Your task to perform on an android device: Search for sushi restaurants on Maps Image 0: 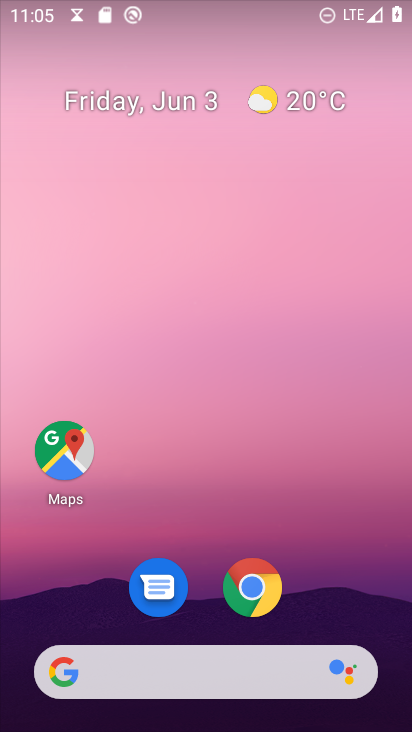
Step 0: click (69, 452)
Your task to perform on an android device: Search for sushi restaurants on Maps Image 1: 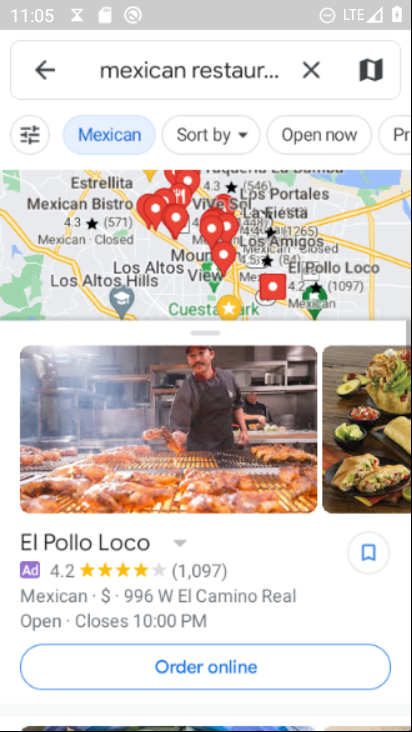
Step 1: click (301, 71)
Your task to perform on an android device: Search for sushi restaurants on Maps Image 2: 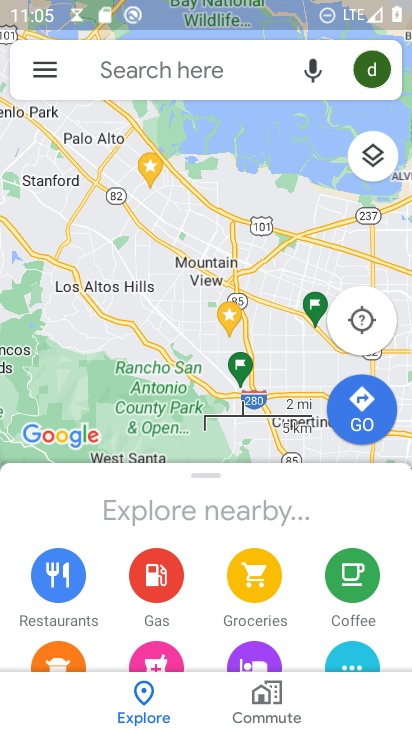
Step 2: click (186, 88)
Your task to perform on an android device: Search for sushi restaurants on Maps Image 3: 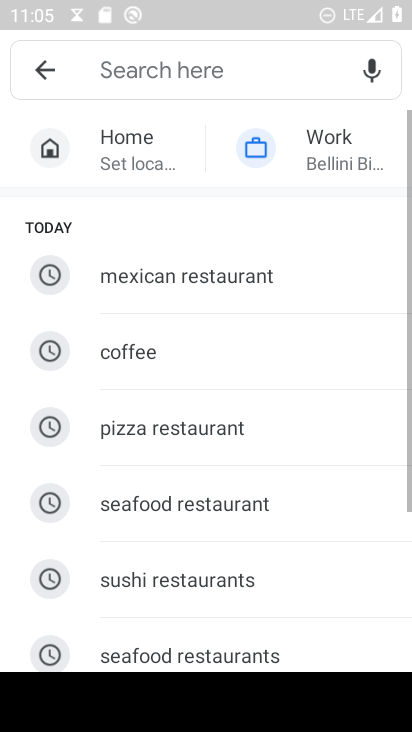
Step 3: click (165, 602)
Your task to perform on an android device: Search for sushi restaurants on Maps Image 4: 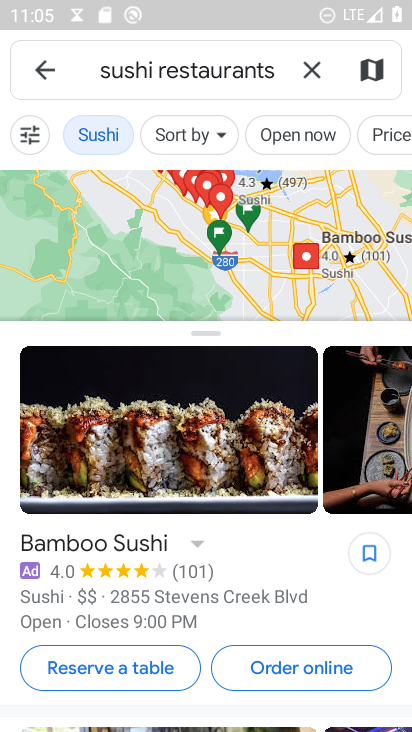
Step 4: task complete